Your task to perform on an android device: Show me popular games on the Play Store Image 0: 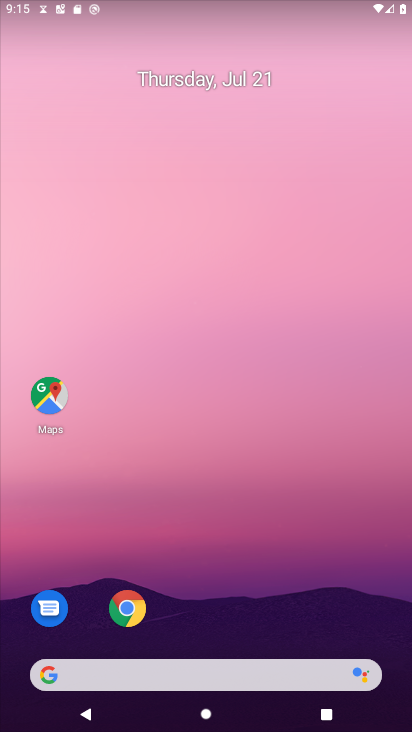
Step 0: drag from (194, 599) to (143, 5)
Your task to perform on an android device: Show me popular games on the Play Store Image 1: 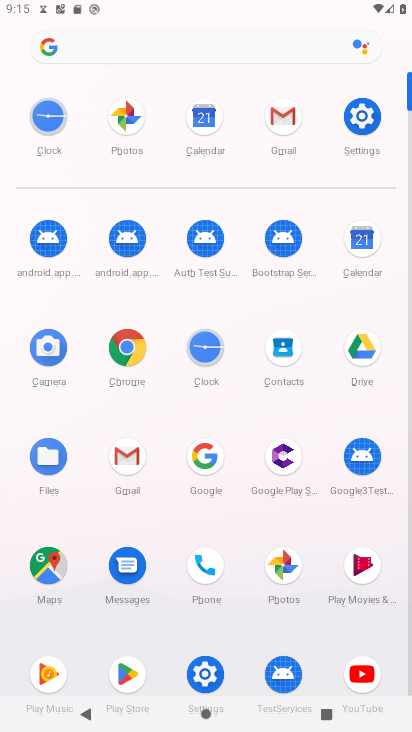
Step 1: click (125, 679)
Your task to perform on an android device: Show me popular games on the Play Store Image 2: 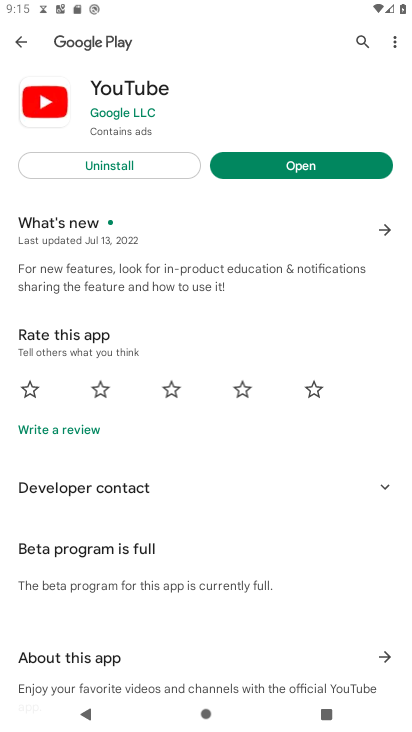
Step 2: click (21, 36)
Your task to perform on an android device: Show me popular games on the Play Store Image 3: 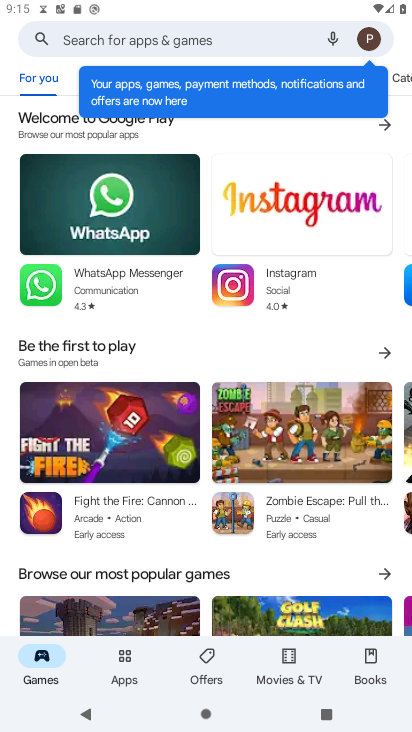
Step 3: task complete